Your task to perform on an android device: Open calendar and show me the first week of next month Image 0: 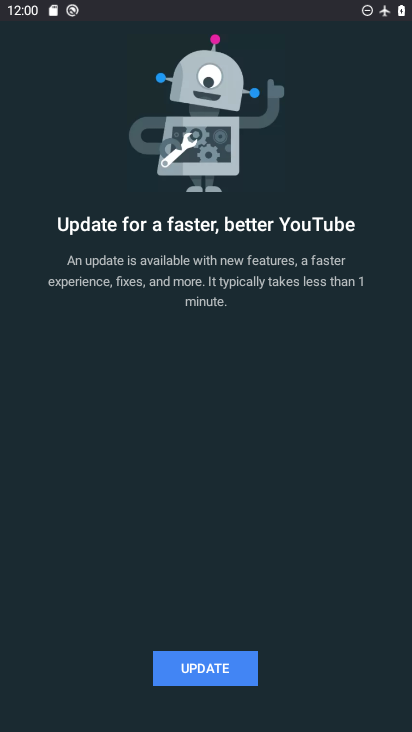
Step 0: press back button
Your task to perform on an android device: Open calendar and show me the first week of next month Image 1: 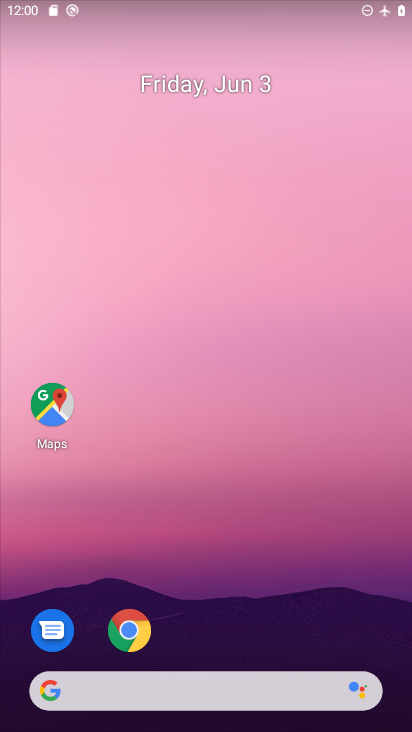
Step 1: drag from (278, 631) to (229, 249)
Your task to perform on an android device: Open calendar and show me the first week of next month Image 2: 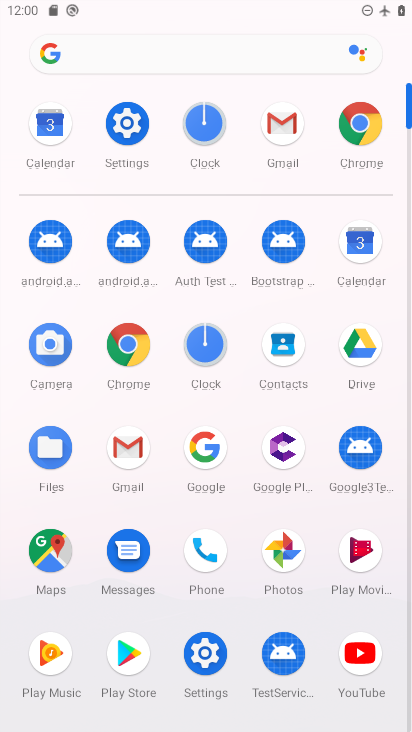
Step 2: click (370, 239)
Your task to perform on an android device: Open calendar and show me the first week of next month Image 3: 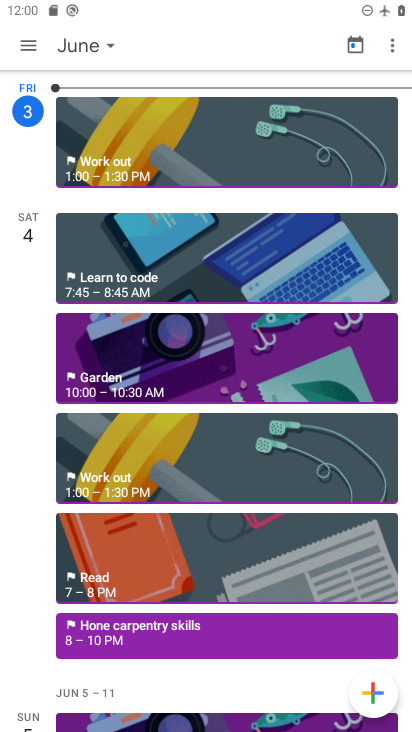
Step 3: click (21, 58)
Your task to perform on an android device: Open calendar and show me the first week of next month Image 4: 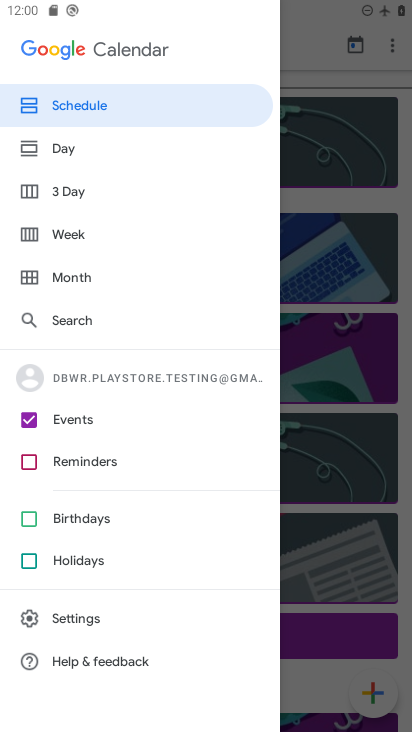
Step 4: click (74, 229)
Your task to perform on an android device: Open calendar and show me the first week of next month Image 5: 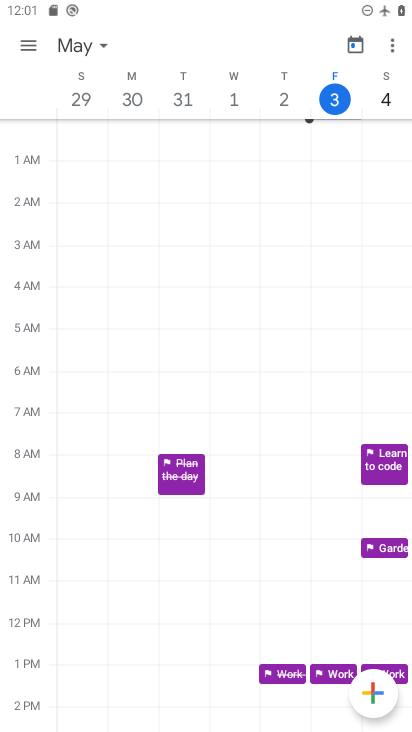
Step 5: click (89, 53)
Your task to perform on an android device: Open calendar and show me the first week of next month Image 6: 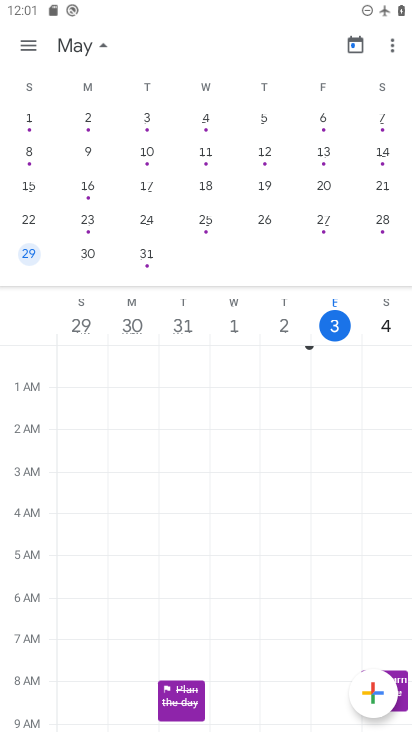
Step 6: drag from (361, 157) to (36, 187)
Your task to perform on an android device: Open calendar and show me the first week of next month Image 7: 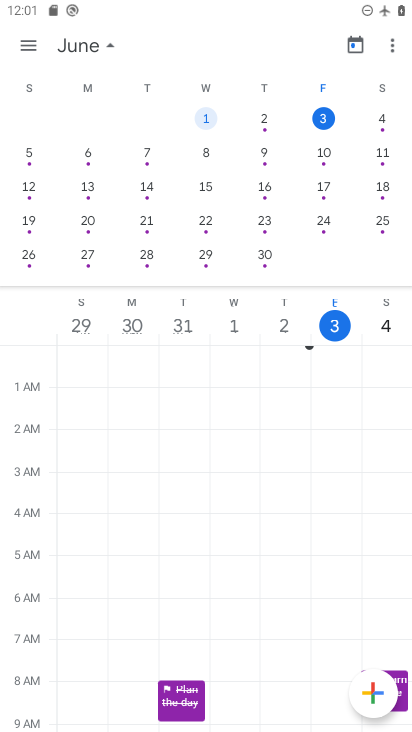
Step 7: click (321, 120)
Your task to perform on an android device: Open calendar and show me the first week of next month Image 8: 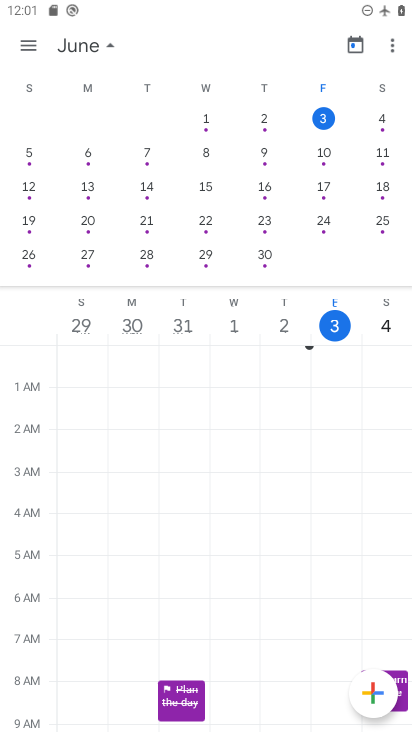
Step 8: task complete